Your task to perform on an android device: Open Youtube and go to "Your channel" Image 0: 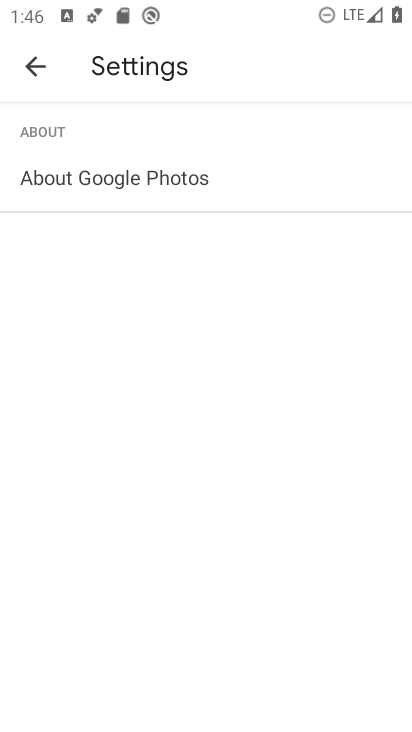
Step 0: press home button
Your task to perform on an android device: Open Youtube and go to "Your channel" Image 1: 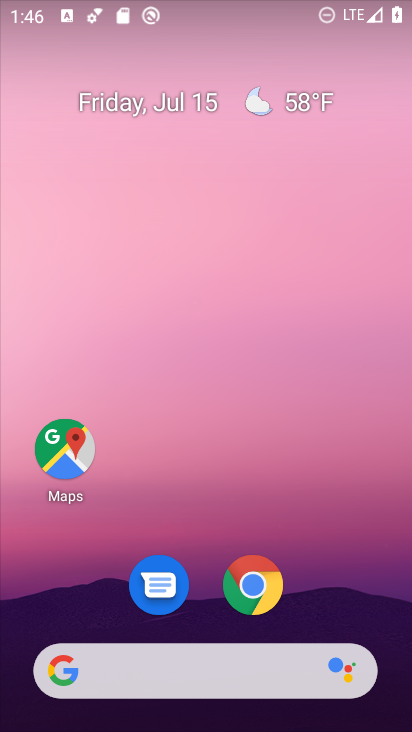
Step 1: drag from (335, 506) to (340, 35)
Your task to perform on an android device: Open Youtube and go to "Your channel" Image 2: 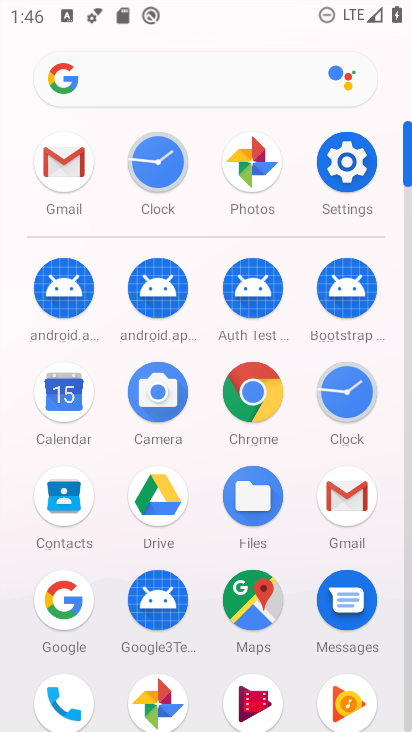
Step 2: drag from (296, 481) to (336, 63)
Your task to perform on an android device: Open Youtube and go to "Your channel" Image 3: 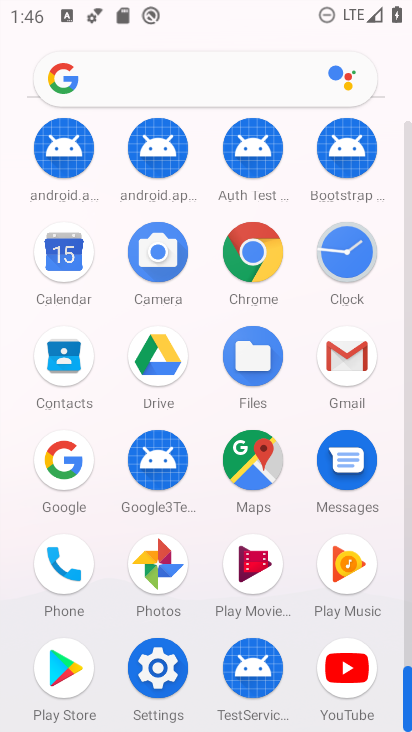
Step 3: click (356, 658)
Your task to perform on an android device: Open Youtube and go to "Your channel" Image 4: 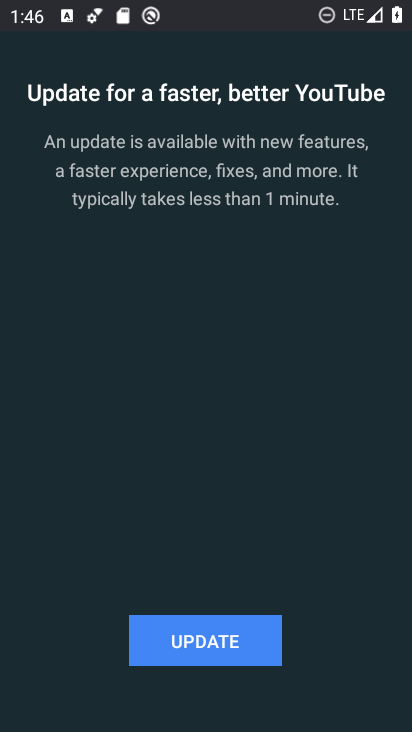
Step 4: click (258, 637)
Your task to perform on an android device: Open Youtube and go to "Your channel" Image 5: 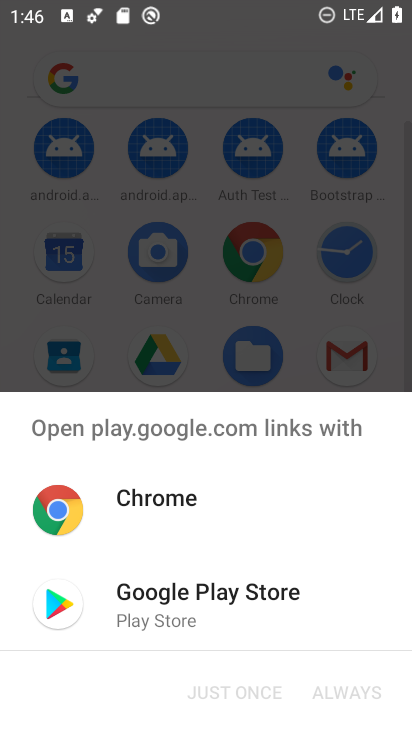
Step 5: click (164, 601)
Your task to perform on an android device: Open Youtube and go to "Your channel" Image 6: 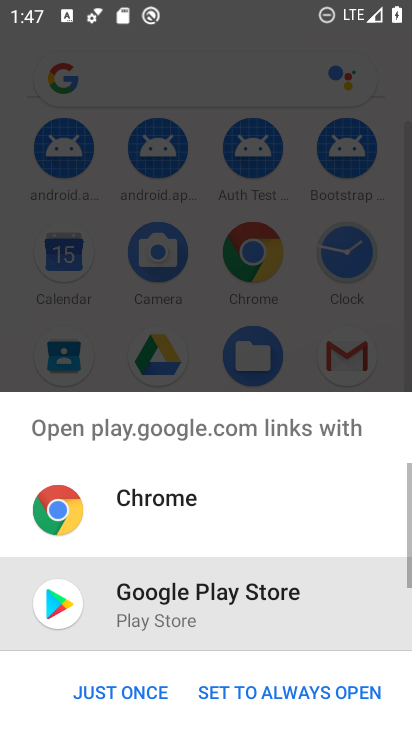
Step 6: click (160, 687)
Your task to perform on an android device: Open Youtube and go to "Your channel" Image 7: 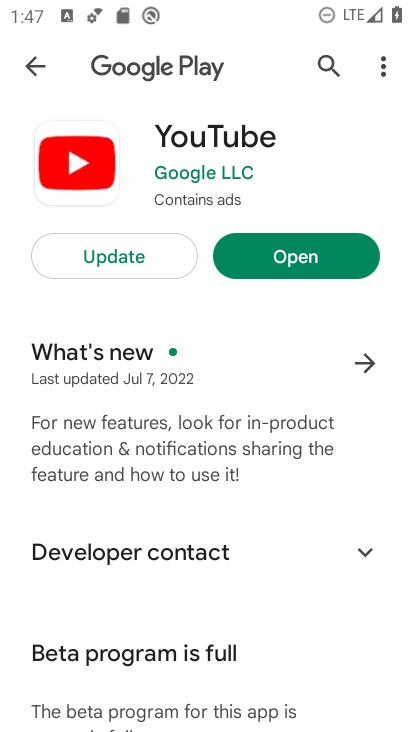
Step 7: click (176, 258)
Your task to perform on an android device: Open Youtube and go to "Your channel" Image 8: 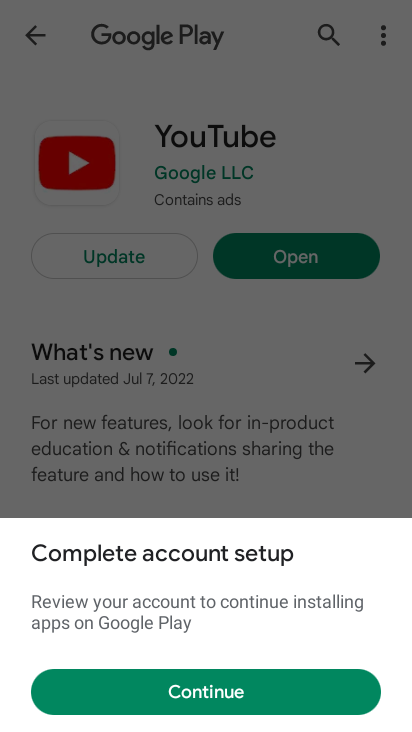
Step 8: click (270, 687)
Your task to perform on an android device: Open Youtube and go to "Your channel" Image 9: 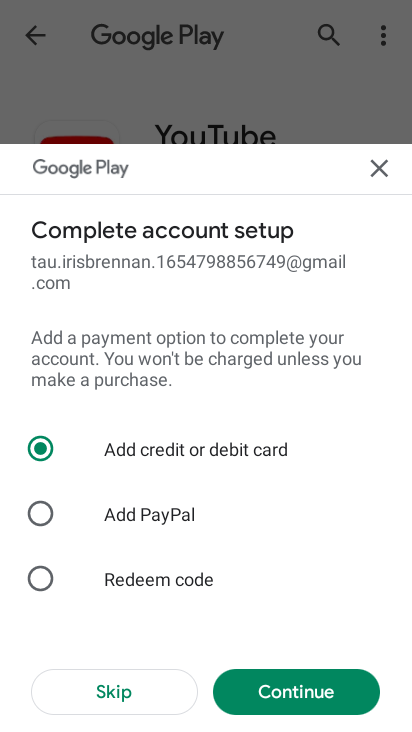
Step 9: click (130, 693)
Your task to perform on an android device: Open Youtube and go to "Your channel" Image 10: 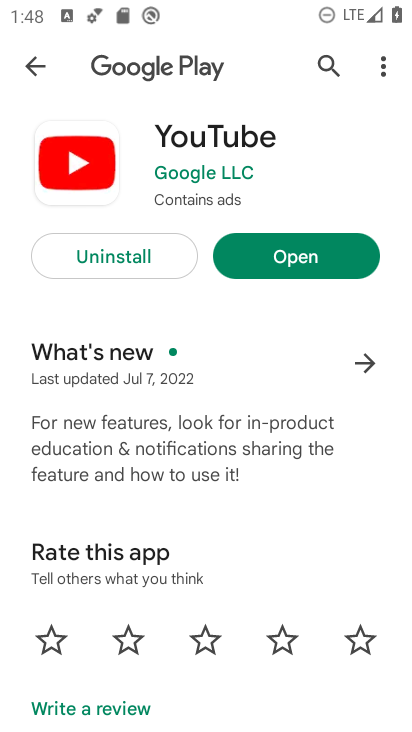
Step 10: click (365, 258)
Your task to perform on an android device: Open Youtube and go to "Your channel" Image 11: 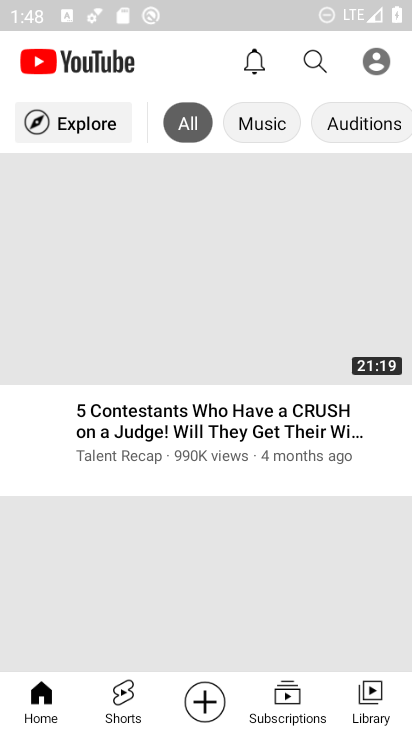
Step 11: click (382, 64)
Your task to perform on an android device: Open Youtube and go to "Your channel" Image 12: 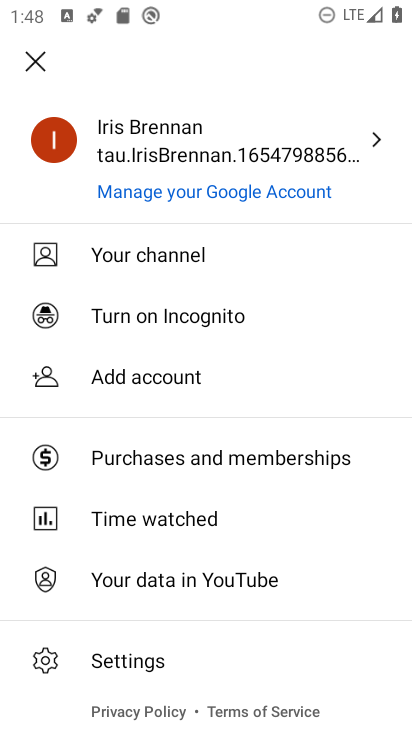
Step 12: click (194, 252)
Your task to perform on an android device: Open Youtube and go to "Your channel" Image 13: 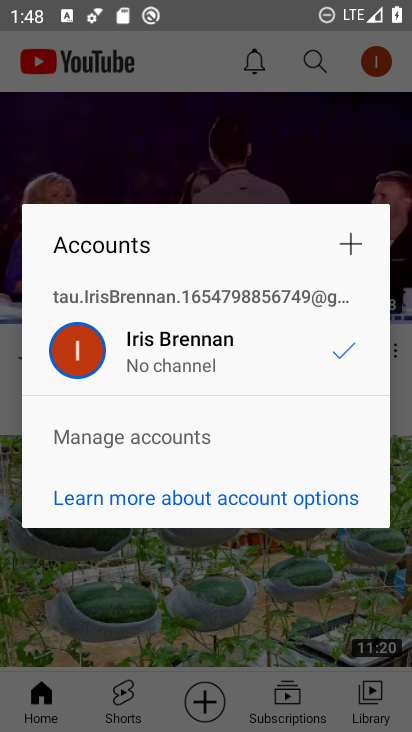
Step 13: click (227, 350)
Your task to perform on an android device: Open Youtube and go to "Your channel" Image 14: 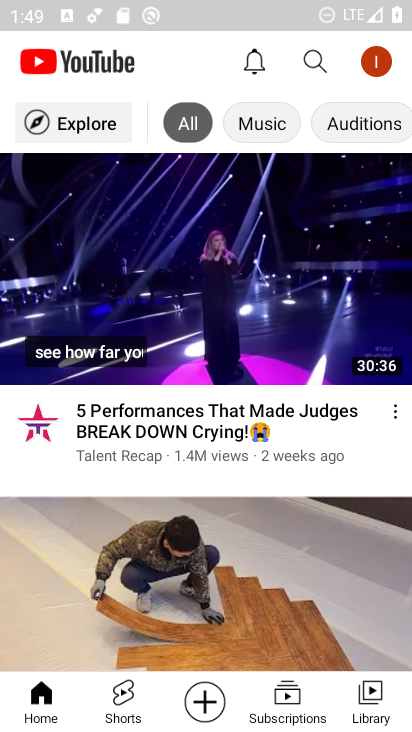
Step 14: task complete